Your task to perform on an android device: Open the stopwatch Image 0: 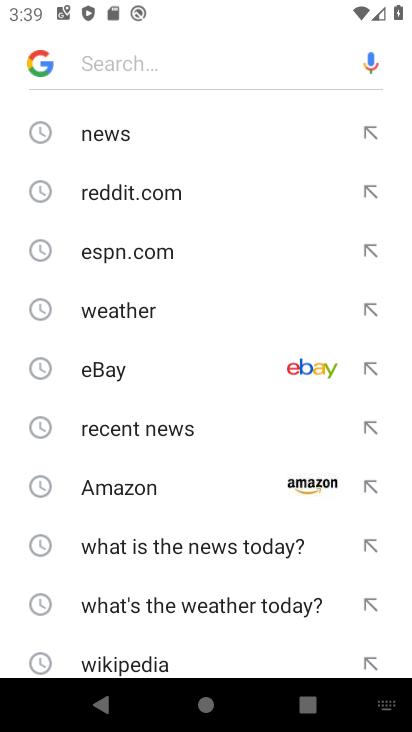
Step 0: press home button
Your task to perform on an android device: Open the stopwatch Image 1: 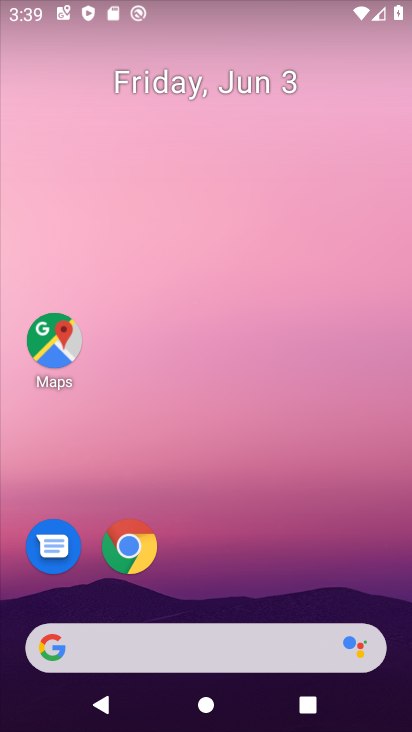
Step 1: drag from (233, 512) to (255, 8)
Your task to perform on an android device: Open the stopwatch Image 2: 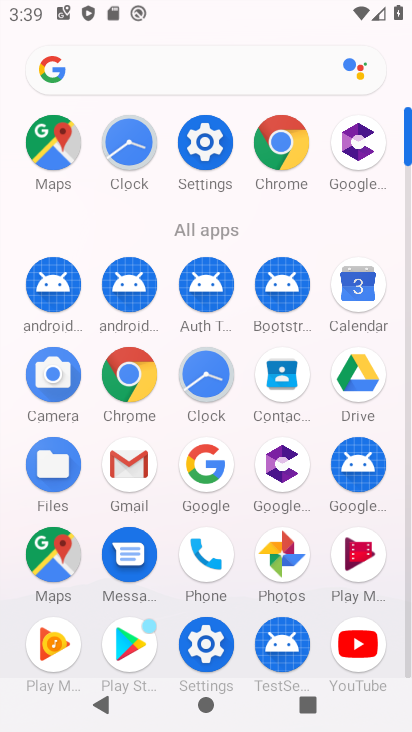
Step 2: click (126, 133)
Your task to perform on an android device: Open the stopwatch Image 3: 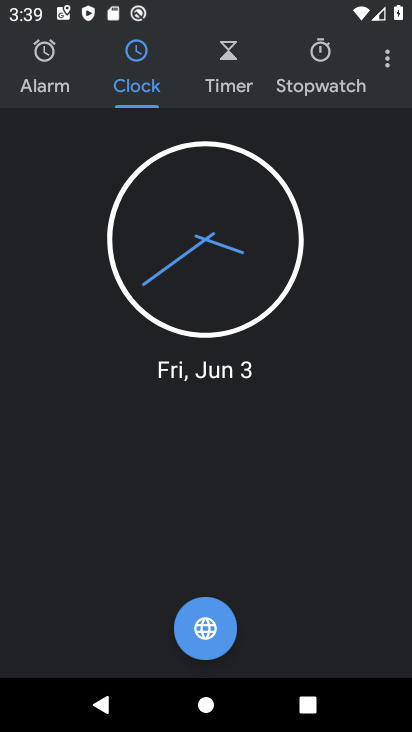
Step 3: click (328, 68)
Your task to perform on an android device: Open the stopwatch Image 4: 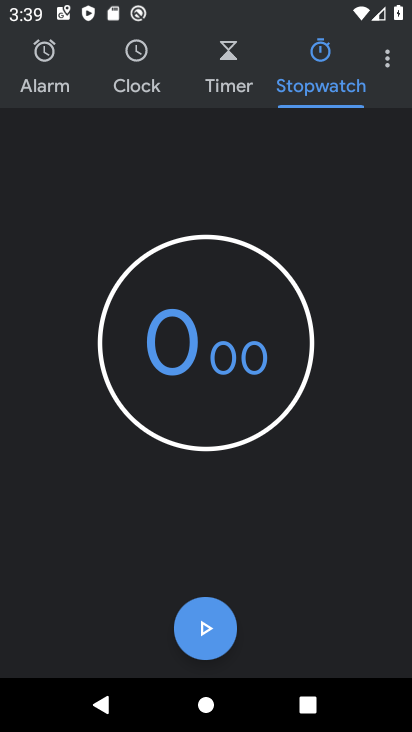
Step 4: task complete